Your task to perform on an android device: Search for pizza restaurants on Maps Image 0: 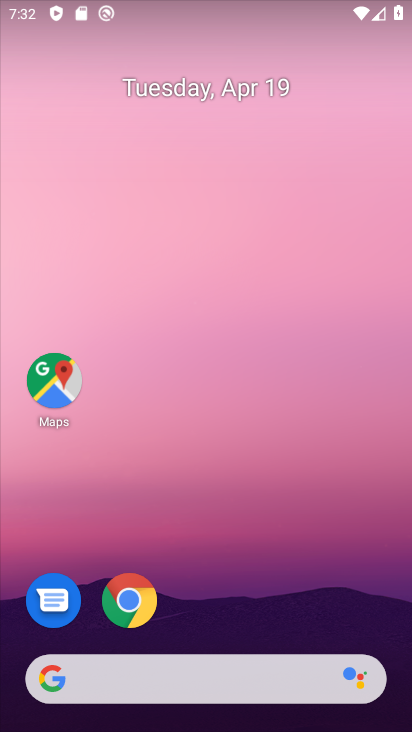
Step 0: drag from (359, 600) to (363, 105)
Your task to perform on an android device: Search for pizza restaurants on Maps Image 1: 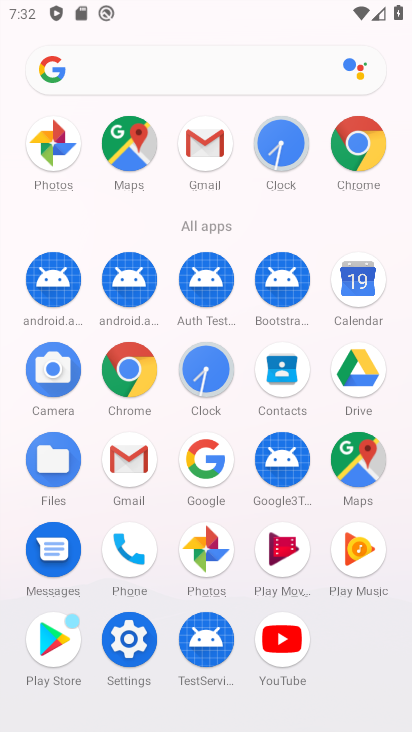
Step 1: click (363, 459)
Your task to perform on an android device: Search for pizza restaurants on Maps Image 2: 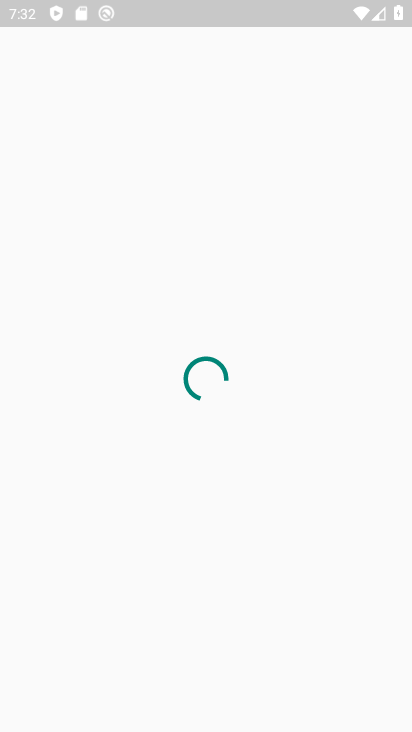
Step 2: click (242, 64)
Your task to perform on an android device: Search for pizza restaurants on Maps Image 3: 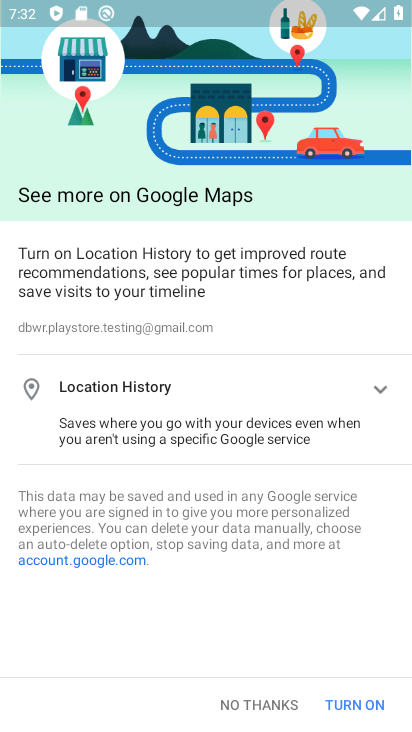
Step 3: click (253, 700)
Your task to perform on an android device: Search for pizza restaurants on Maps Image 4: 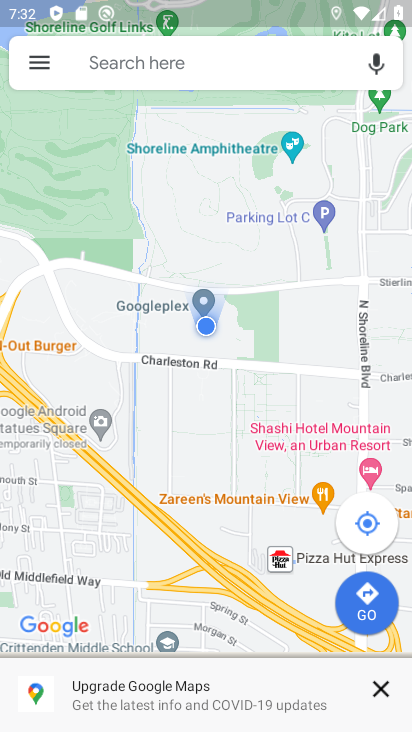
Step 4: click (243, 61)
Your task to perform on an android device: Search for pizza restaurants on Maps Image 5: 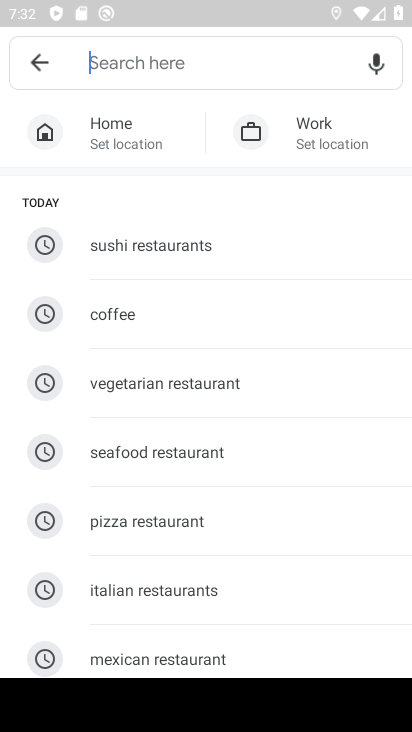
Step 5: type "pizzaa restaurants"
Your task to perform on an android device: Search for pizza restaurants on Maps Image 6: 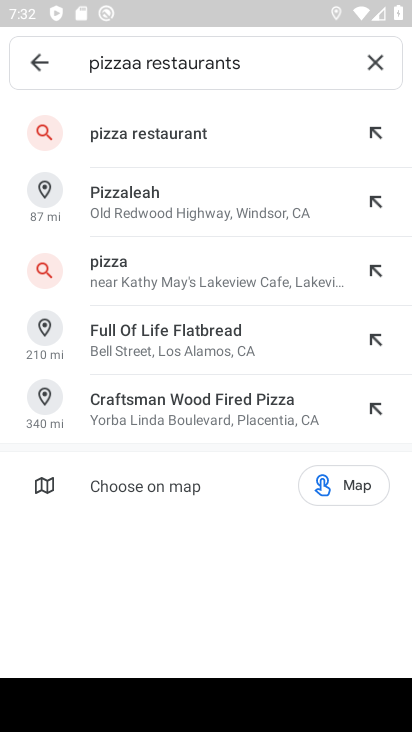
Step 6: click (157, 130)
Your task to perform on an android device: Search for pizza restaurants on Maps Image 7: 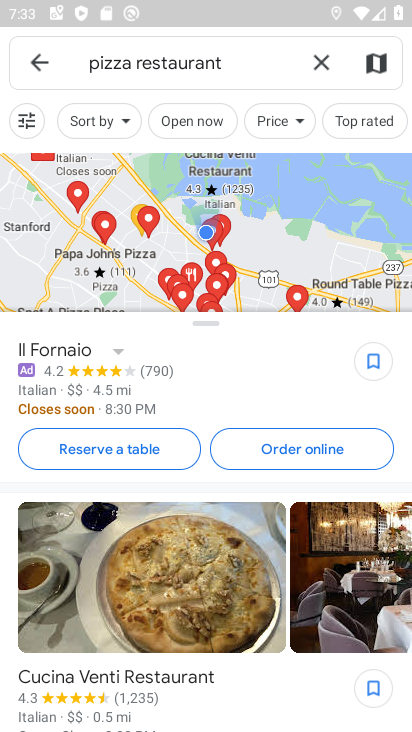
Step 7: task complete